Your task to perform on an android device: open the mobile data screen to see how much data has been used Image 0: 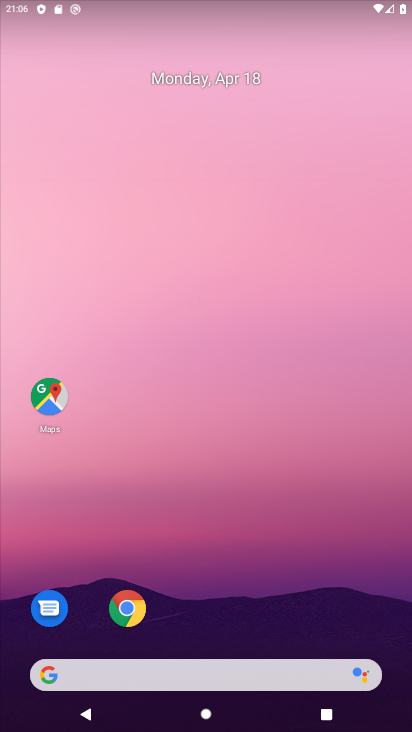
Step 0: drag from (252, 596) to (258, 139)
Your task to perform on an android device: open the mobile data screen to see how much data has been used Image 1: 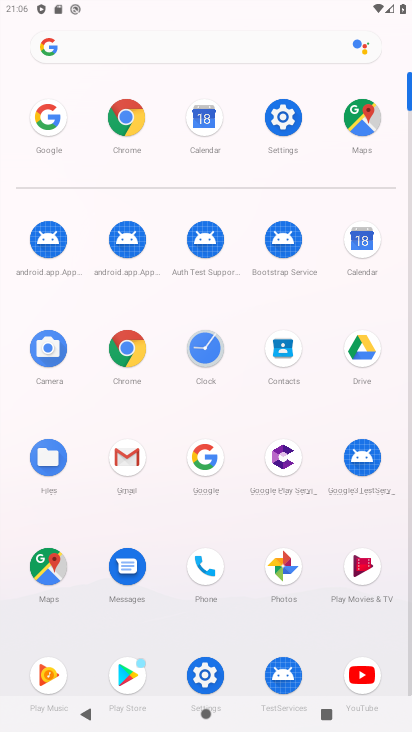
Step 1: click (279, 115)
Your task to perform on an android device: open the mobile data screen to see how much data has been used Image 2: 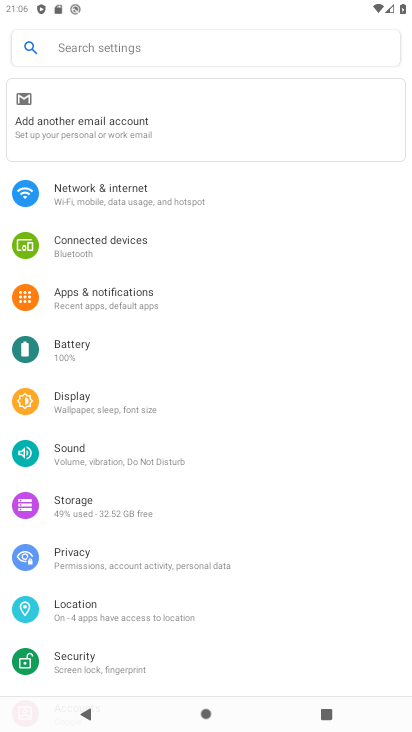
Step 2: click (92, 197)
Your task to perform on an android device: open the mobile data screen to see how much data has been used Image 3: 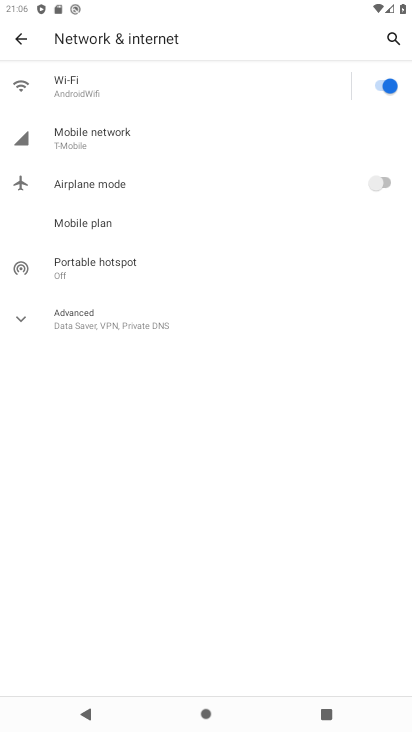
Step 3: click (102, 140)
Your task to perform on an android device: open the mobile data screen to see how much data has been used Image 4: 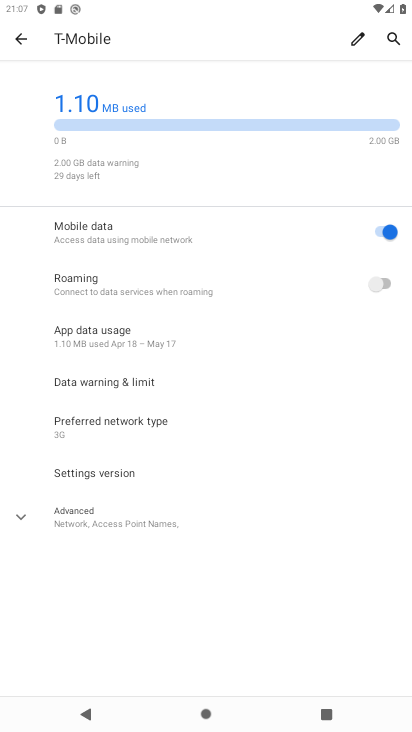
Step 4: task complete